Your task to perform on an android device: What's on my calendar tomorrow? Image 0: 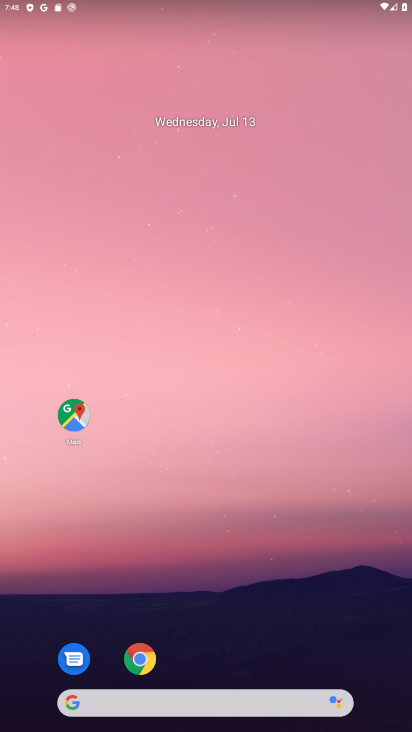
Step 0: drag from (301, 627) to (301, 55)
Your task to perform on an android device: What's on my calendar tomorrow? Image 1: 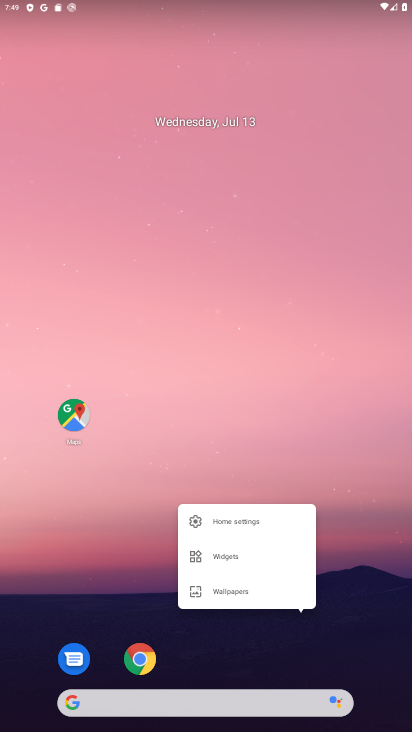
Step 1: click (264, 208)
Your task to perform on an android device: What's on my calendar tomorrow? Image 2: 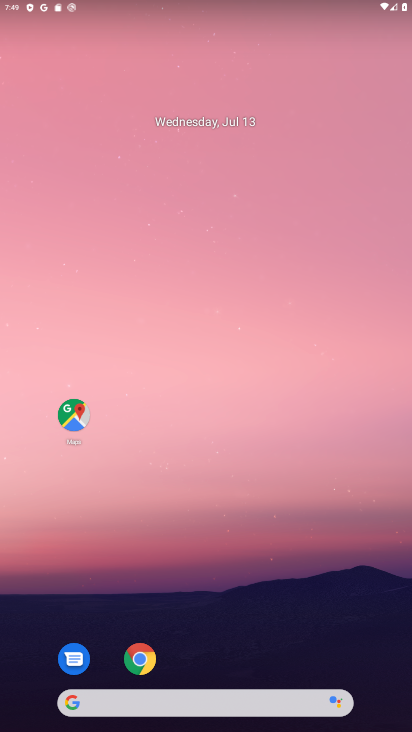
Step 2: drag from (262, 651) to (206, 175)
Your task to perform on an android device: What's on my calendar tomorrow? Image 3: 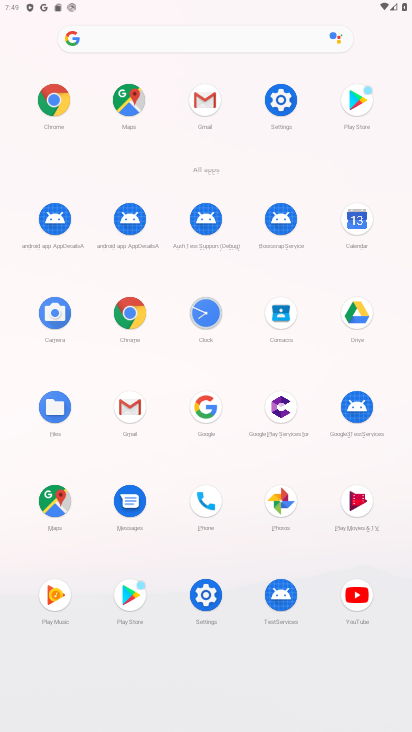
Step 3: click (337, 223)
Your task to perform on an android device: What's on my calendar tomorrow? Image 4: 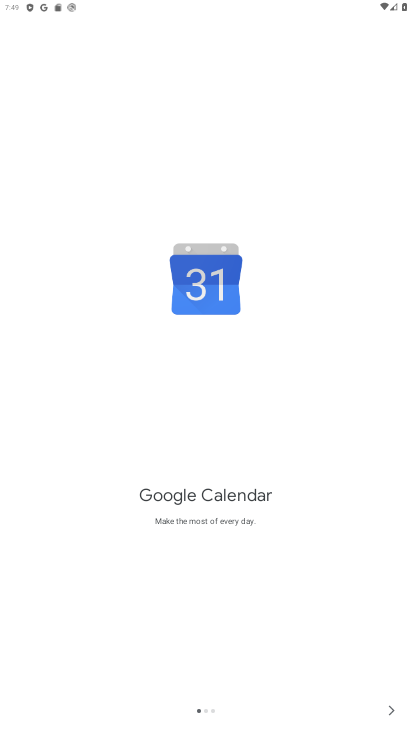
Step 4: click (380, 718)
Your task to perform on an android device: What's on my calendar tomorrow? Image 5: 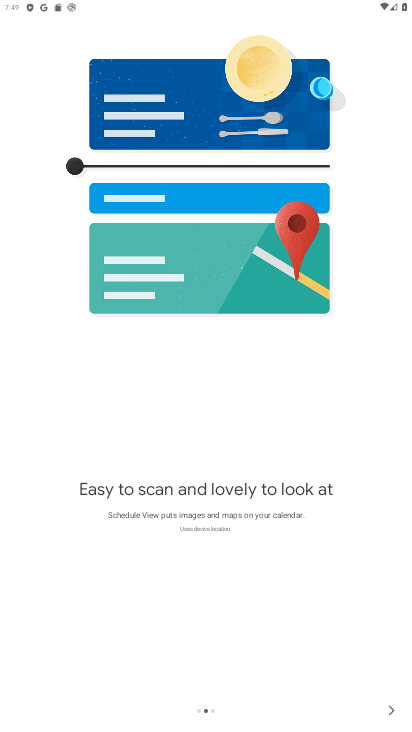
Step 5: click (379, 718)
Your task to perform on an android device: What's on my calendar tomorrow? Image 6: 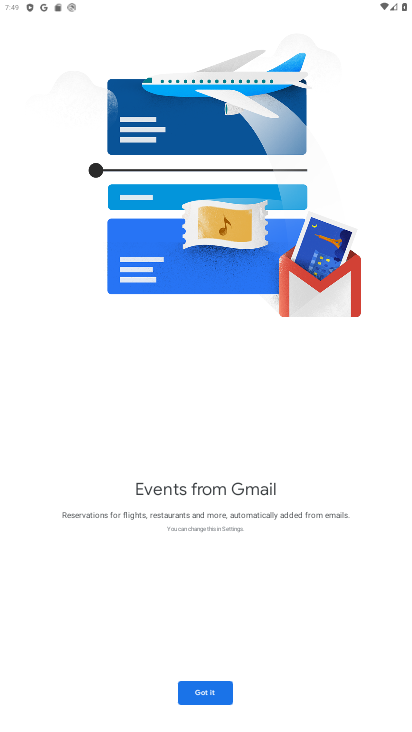
Step 6: click (202, 700)
Your task to perform on an android device: What's on my calendar tomorrow? Image 7: 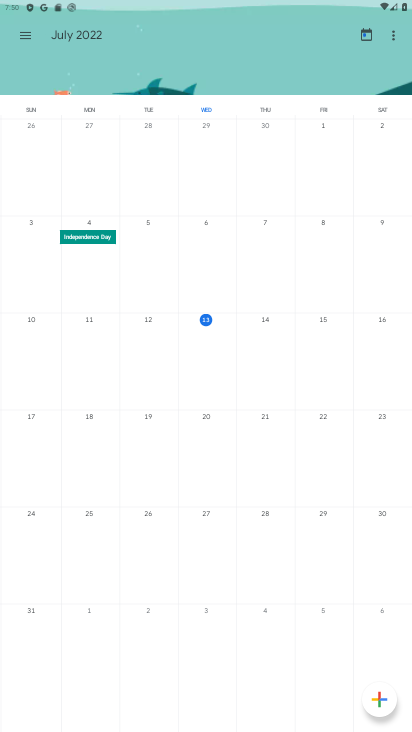
Step 7: task complete